Your task to perform on an android device: What is the news today? Image 0: 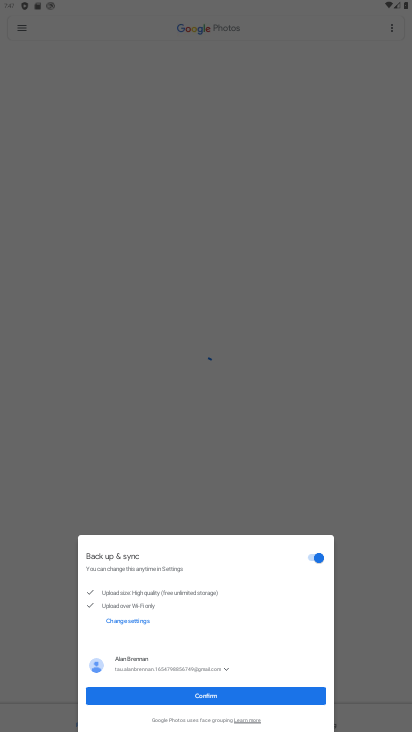
Step 0: press home button
Your task to perform on an android device: What is the news today? Image 1: 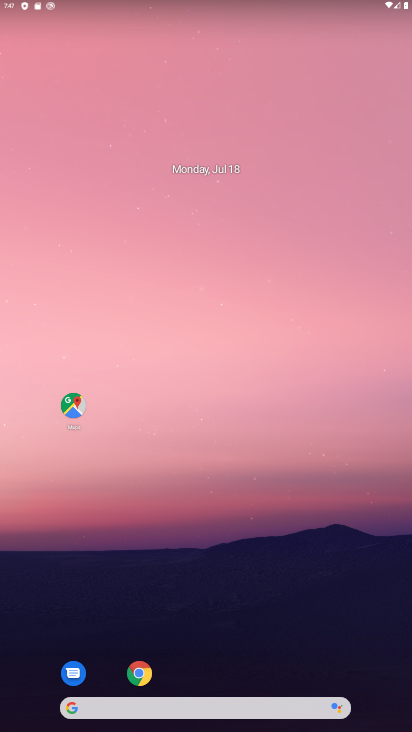
Step 1: click (168, 704)
Your task to perform on an android device: What is the news today? Image 2: 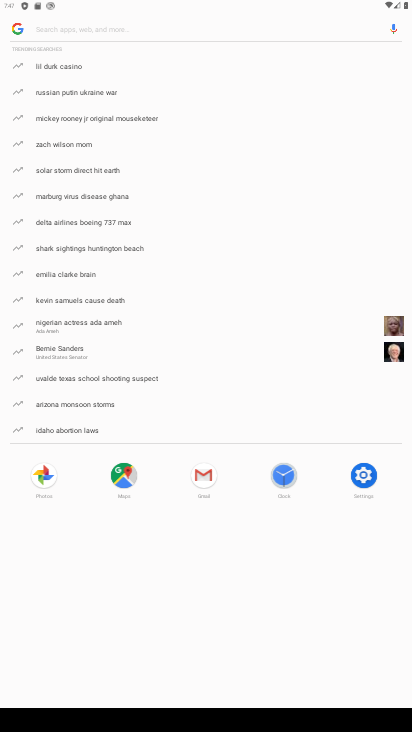
Step 2: type "news today"
Your task to perform on an android device: What is the news today? Image 3: 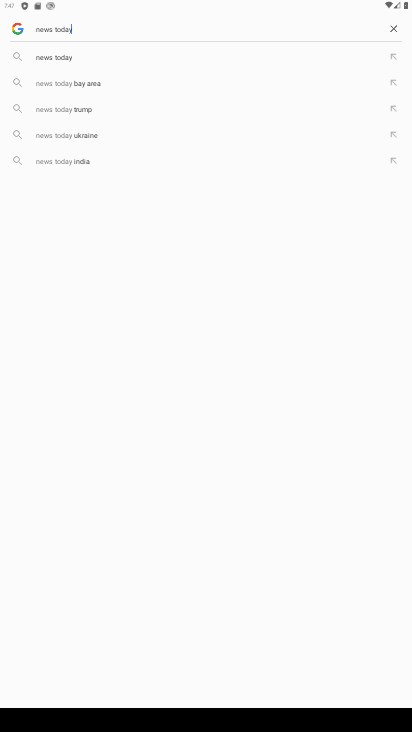
Step 3: click (48, 60)
Your task to perform on an android device: What is the news today? Image 4: 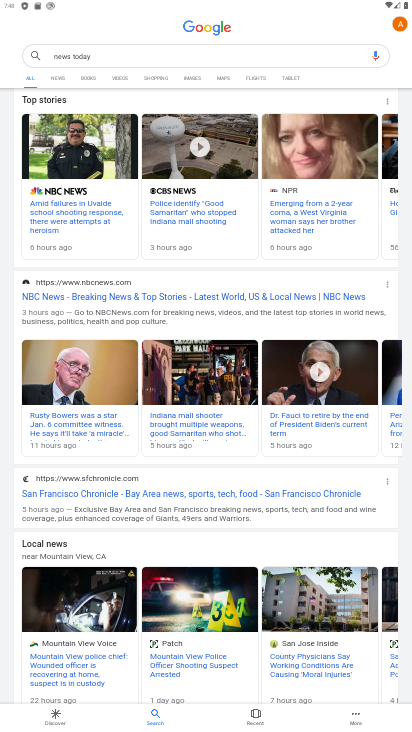
Step 4: task complete